Your task to perform on an android device: check the backup settings in the google photos Image 0: 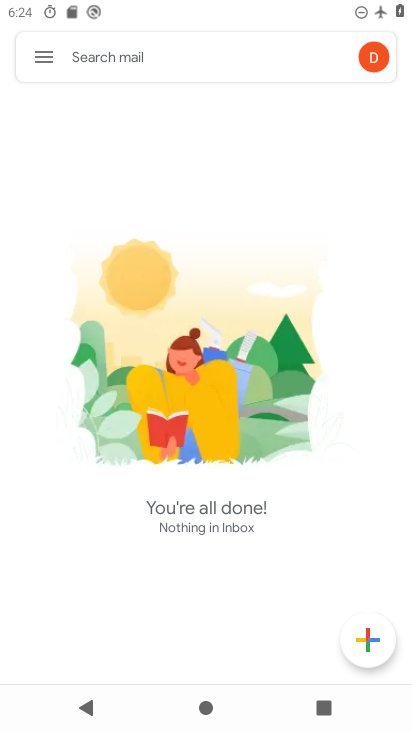
Step 0: press home button
Your task to perform on an android device: check the backup settings in the google photos Image 1: 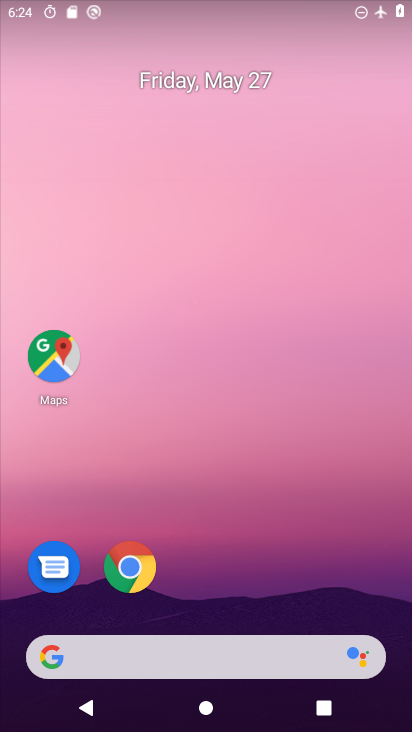
Step 1: drag from (230, 606) to (149, 158)
Your task to perform on an android device: check the backup settings in the google photos Image 2: 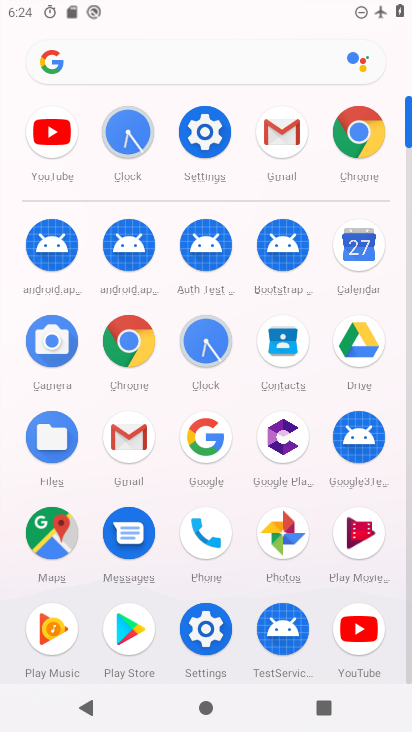
Step 2: click (283, 543)
Your task to perform on an android device: check the backup settings in the google photos Image 3: 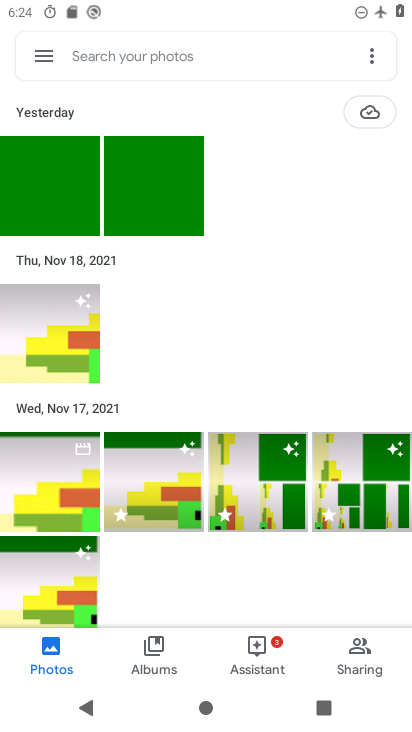
Step 3: click (41, 67)
Your task to perform on an android device: check the backup settings in the google photos Image 4: 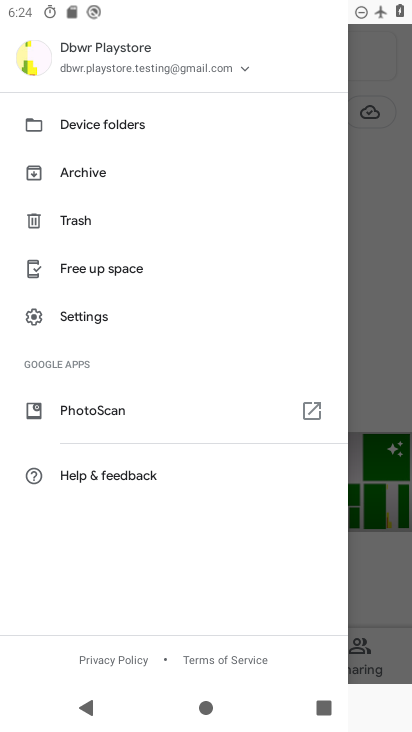
Step 4: click (89, 311)
Your task to perform on an android device: check the backup settings in the google photos Image 5: 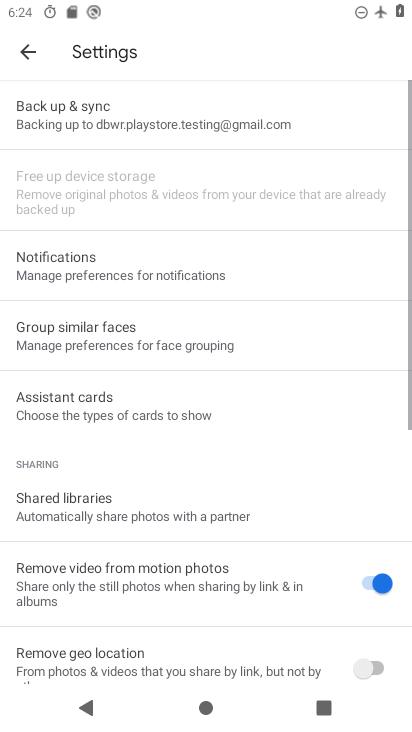
Step 5: click (97, 105)
Your task to perform on an android device: check the backup settings in the google photos Image 6: 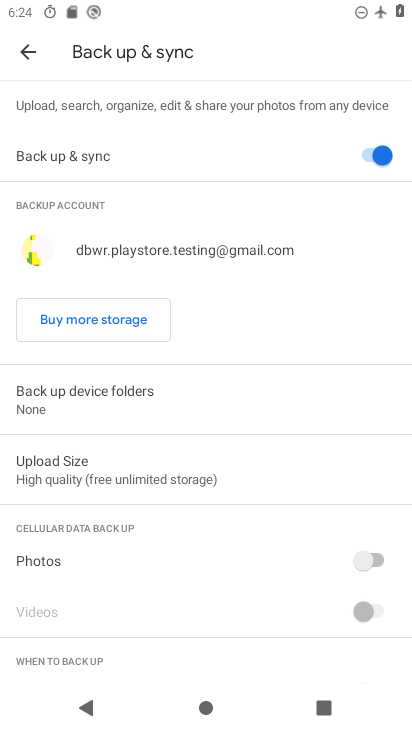
Step 6: task complete